Your task to perform on an android device: Search for seafood restaurants on Google Maps Image 0: 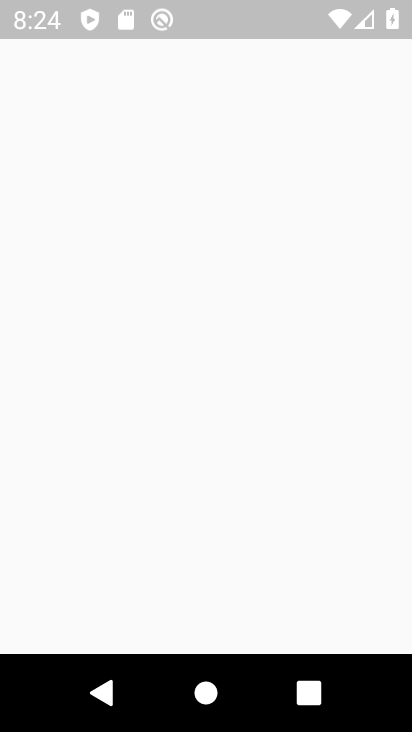
Step 0: press home button
Your task to perform on an android device: Search for seafood restaurants on Google Maps Image 1: 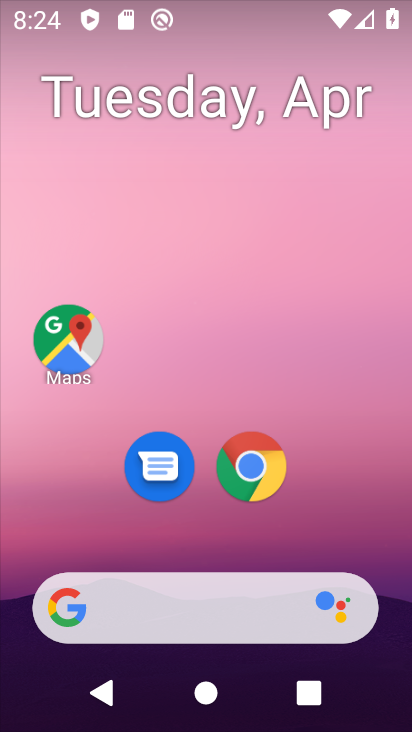
Step 1: drag from (210, 722) to (168, 79)
Your task to perform on an android device: Search for seafood restaurants on Google Maps Image 2: 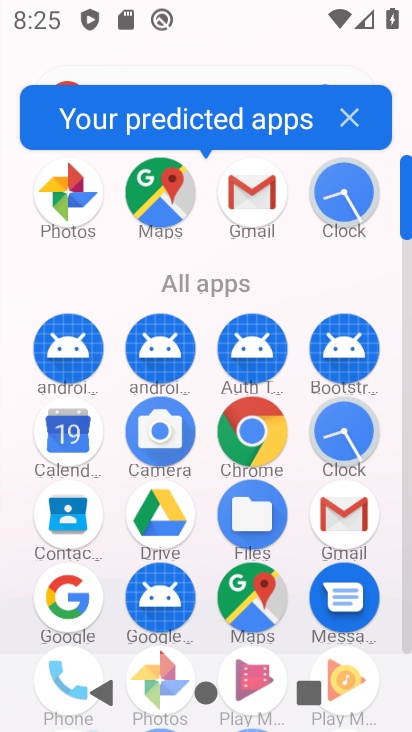
Step 2: click (254, 595)
Your task to perform on an android device: Search for seafood restaurants on Google Maps Image 3: 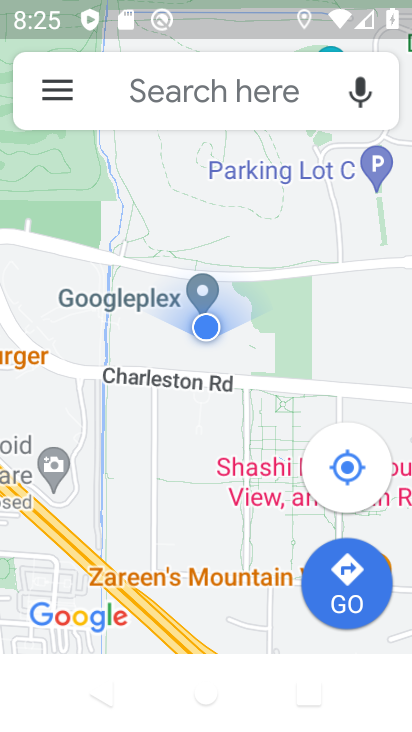
Step 3: click (174, 99)
Your task to perform on an android device: Search for seafood restaurants on Google Maps Image 4: 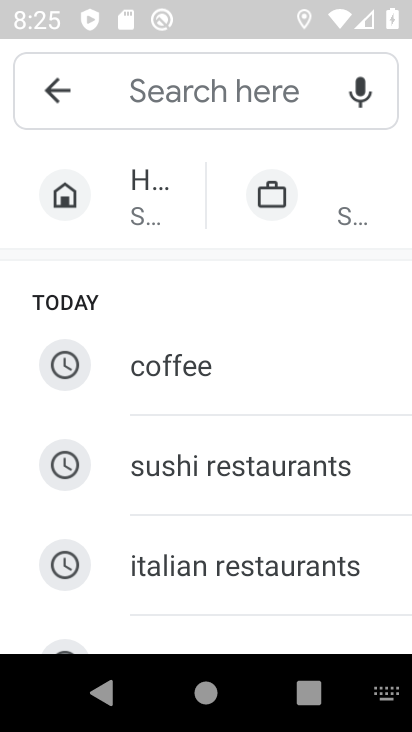
Step 4: type "seafood restaurants"
Your task to perform on an android device: Search for seafood restaurants on Google Maps Image 5: 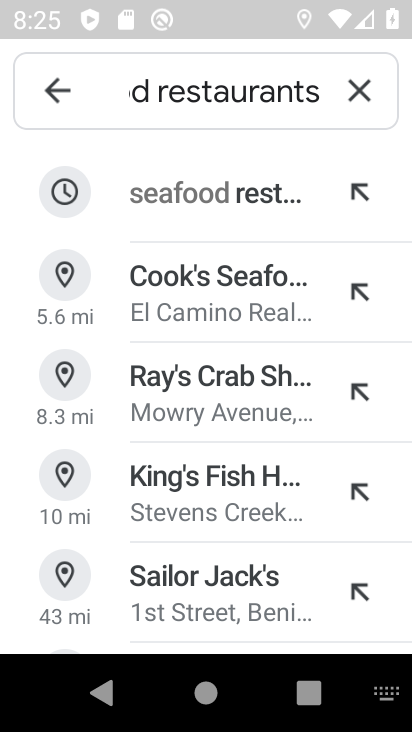
Step 5: click (203, 187)
Your task to perform on an android device: Search for seafood restaurants on Google Maps Image 6: 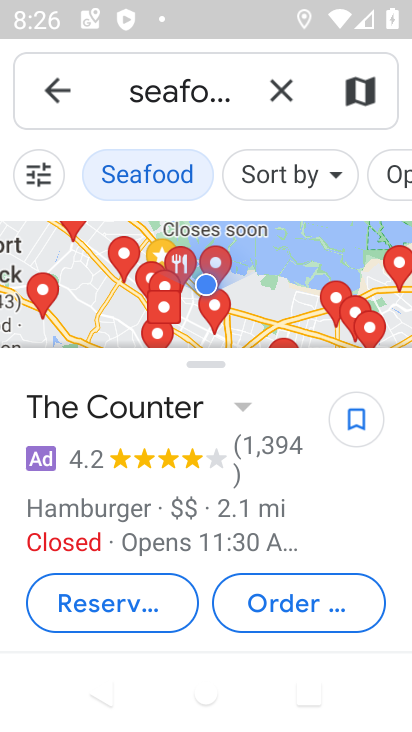
Step 6: task complete